Your task to perform on an android device: turn notification dots off Image 0: 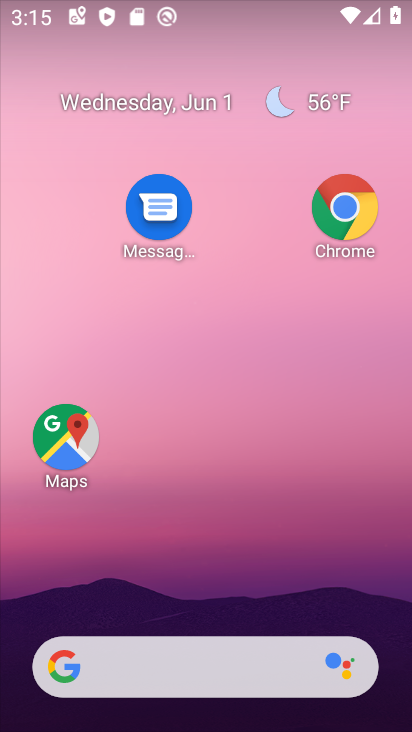
Step 0: drag from (221, 562) to (303, 197)
Your task to perform on an android device: turn notification dots off Image 1: 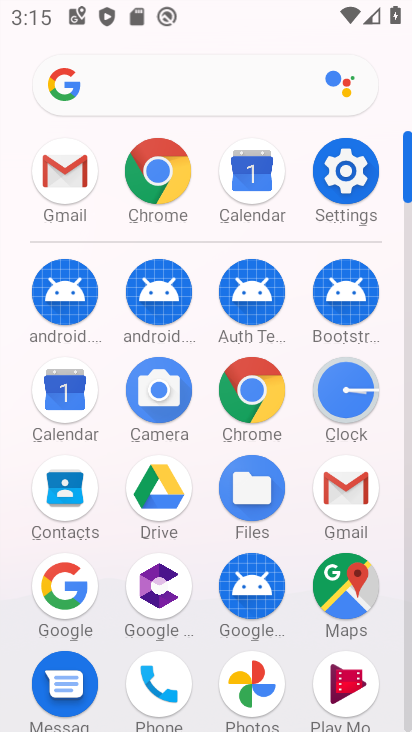
Step 1: click (360, 179)
Your task to perform on an android device: turn notification dots off Image 2: 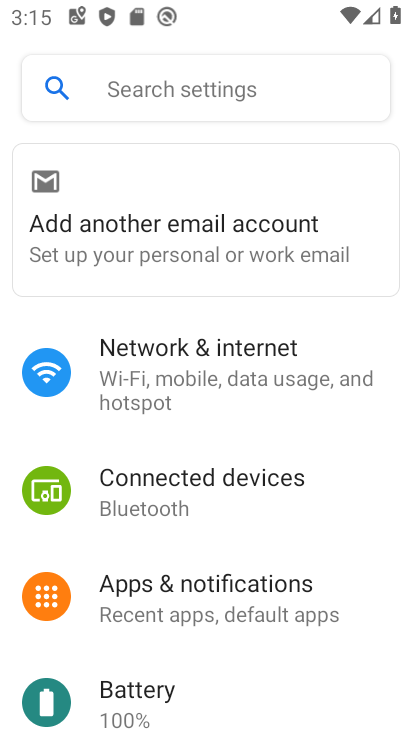
Step 2: click (173, 602)
Your task to perform on an android device: turn notification dots off Image 3: 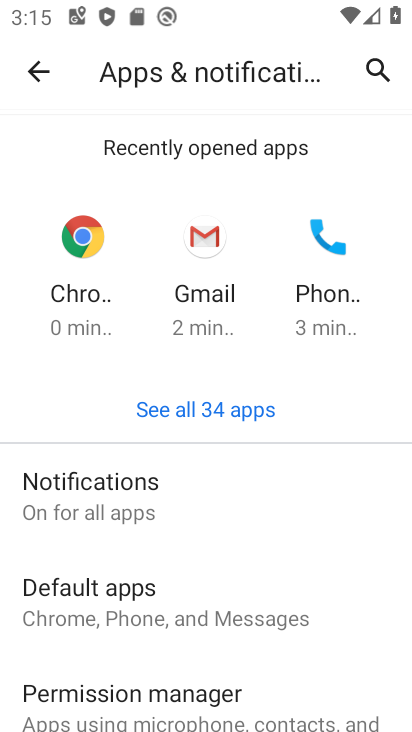
Step 3: click (156, 489)
Your task to perform on an android device: turn notification dots off Image 4: 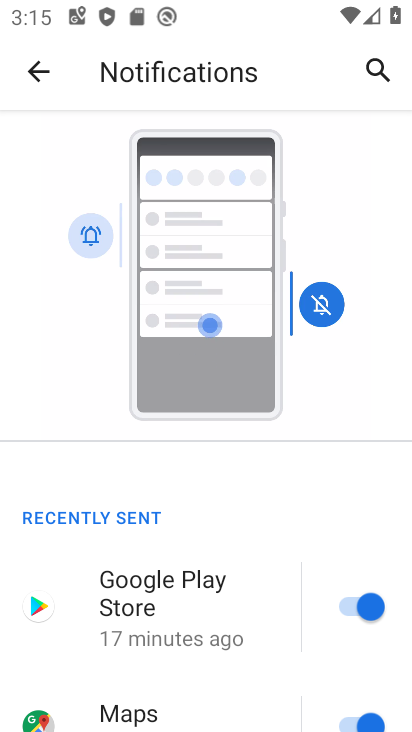
Step 4: drag from (183, 613) to (245, 194)
Your task to perform on an android device: turn notification dots off Image 5: 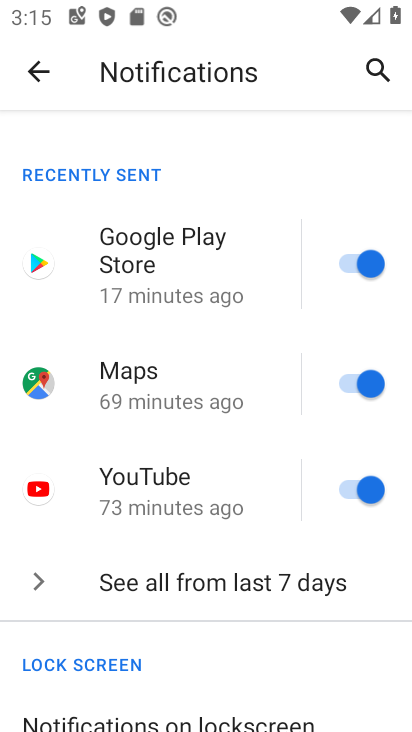
Step 5: drag from (251, 653) to (226, 2)
Your task to perform on an android device: turn notification dots off Image 6: 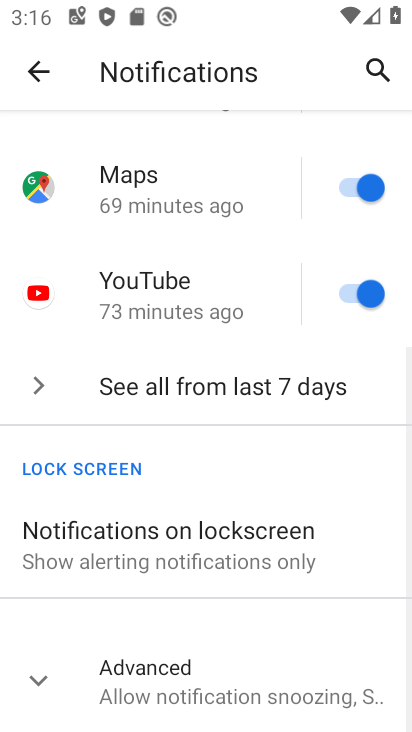
Step 6: click (154, 653)
Your task to perform on an android device: turn notification dots off Image 7: 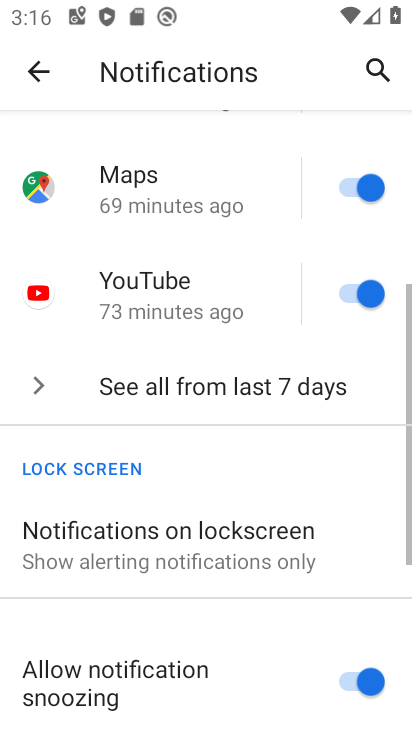
Step 7: drag from (238, 602) to (305, 221)
Your task to perform on an android device: turn notification dots off Image 8: 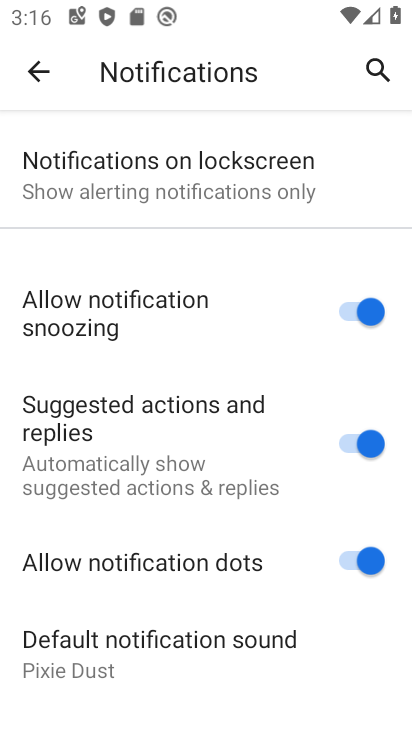
Step 8: click (346, 557)
Your task to perform on an android device: turn notification dots off Image 9: 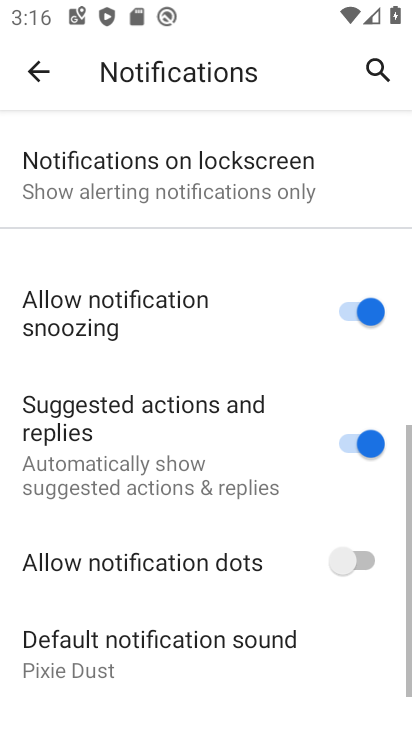
Step 9: task complete